Your task to perform on an android device: What's on my calendar today? Image 0: 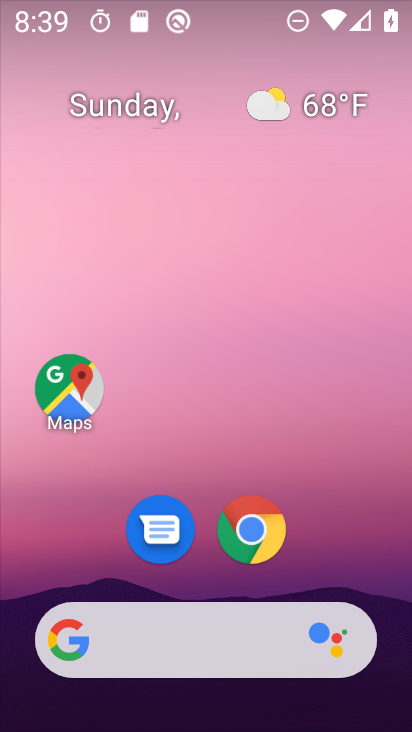
Step 0: press home button
Your task to perform on an android device: What's on my calendar today? Image 1: 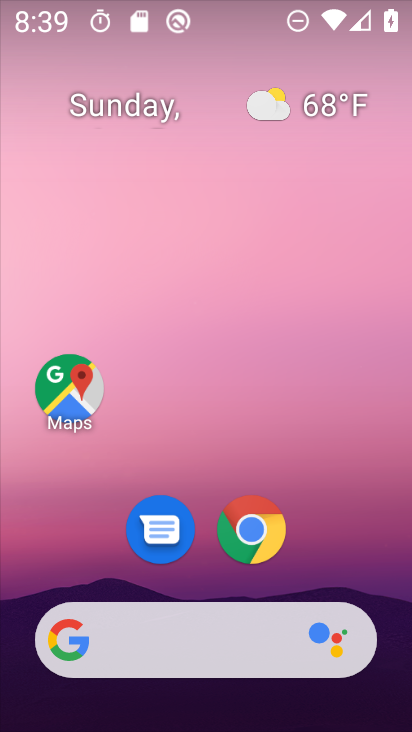
Step 1: drag from (202, 584) to (247, 18)
Your task to perform on an android device: What's on my calendar today? Image 2: 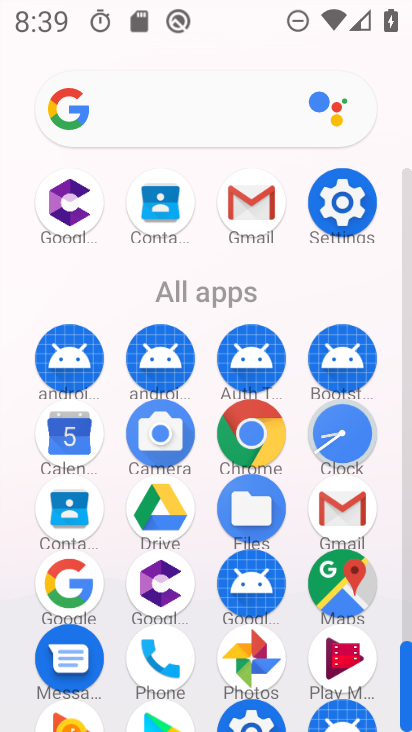
Step 2: click (62, 432)
Your task to perform on an android device: What's on my calendar today? Image 3: 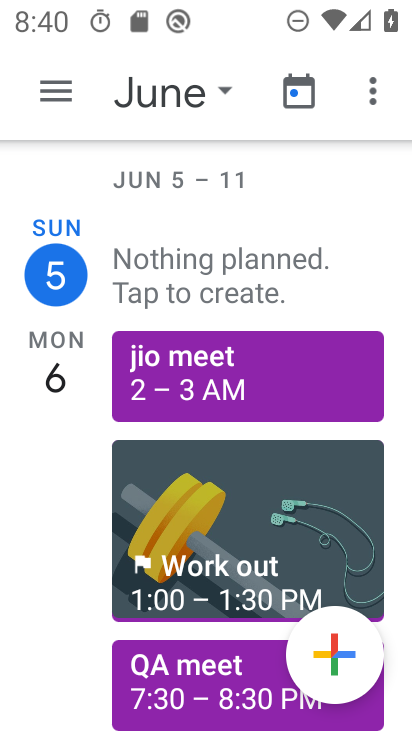
Step 3: click (89, 297)
Your task to perform on an android device: What's on my calendar today? Image 4: 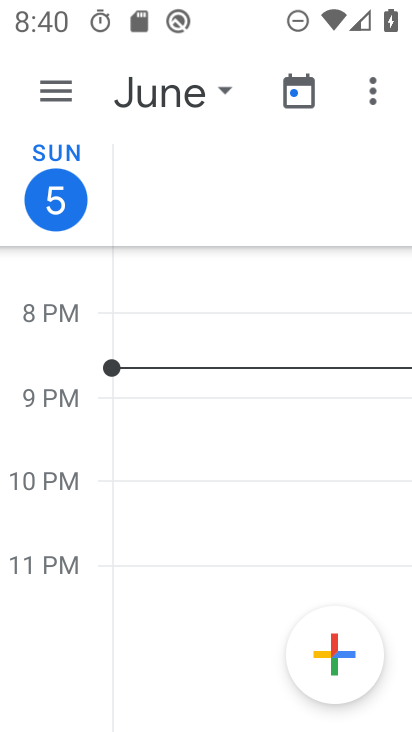
Step 4: task complete